Your task to perform on an android device: Go to privacy settings Image 0: 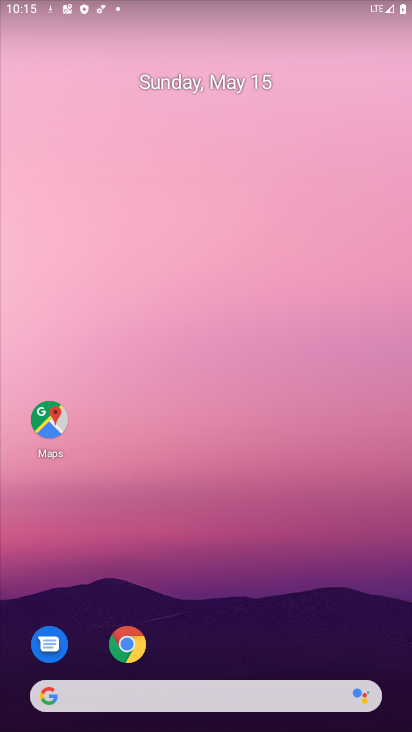
Step 0: press home button
Your task to perform on an android device: Go to privacy settings Image 1: 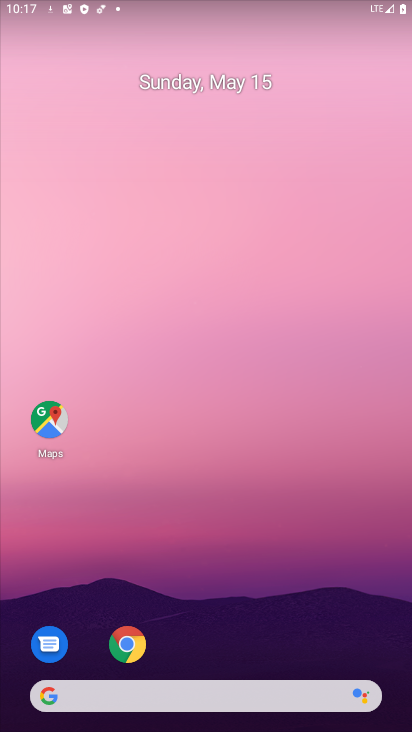
Step 1: drag from (329, 721) to (410, 84)
Your task to perform on an android device: Go to privacy settings Image 2: 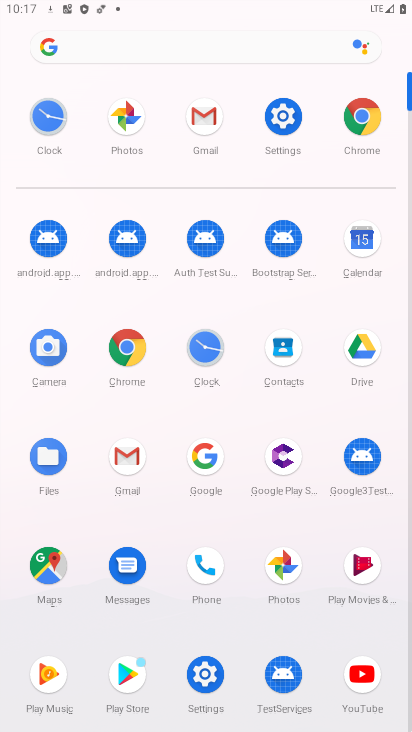
Step 2: click (286, 134)
Your task to perform on an android device: Go to privacy settings Image 3: 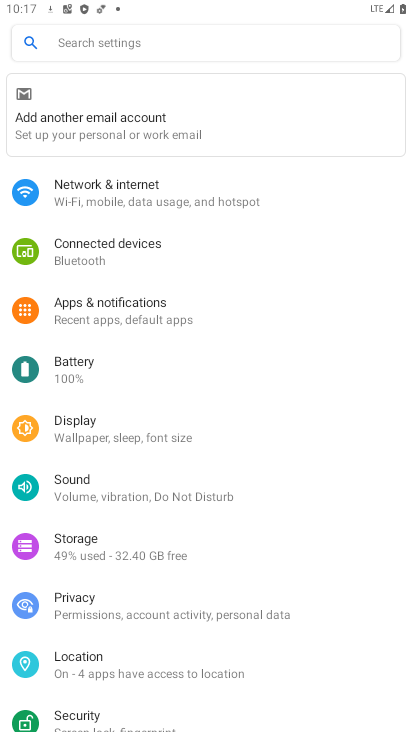
Step 3: drag from (94, 671) to (146, 351)
Your task to perform on an android device: Go to privacy settings Image 4: 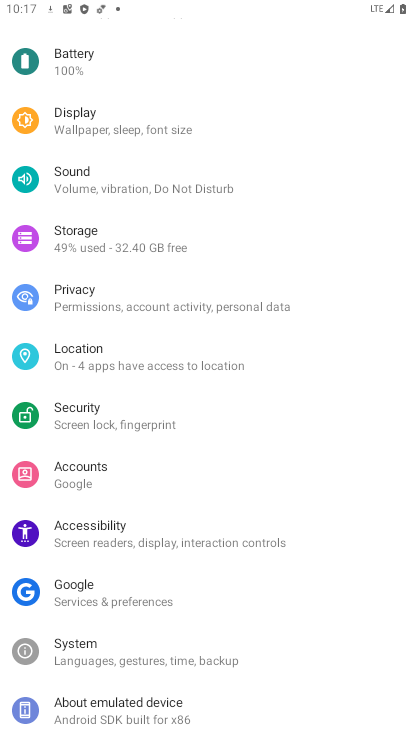
Step 4: click (148, 296)
Your task to perform on an android device: Go to privacy settings Image 5: 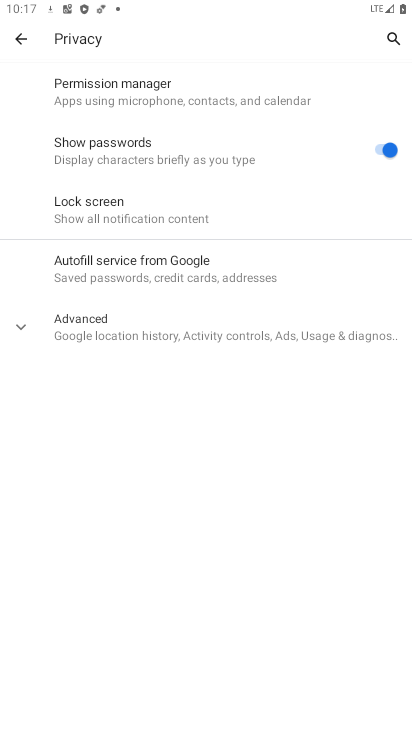
Step 5: task complete